Your task to perform on an android device: check out phone information Image 0: 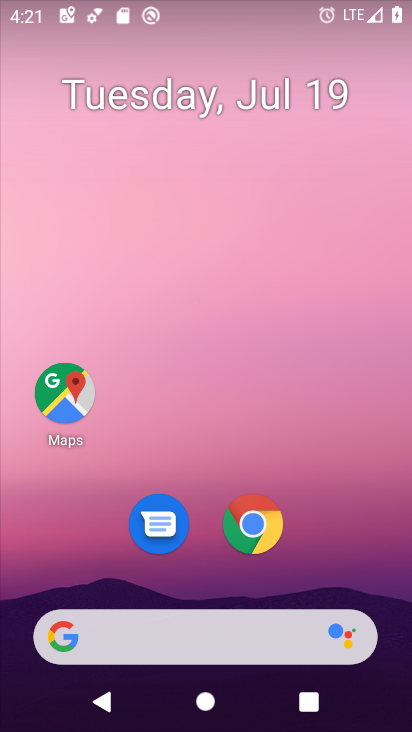
Step 0: drag from (320, 558) to (294, 38)
Your task to perform on an android device: check out phone information Image 1: 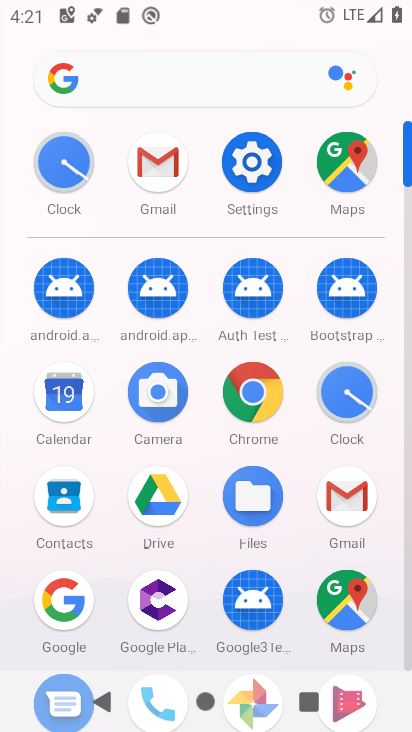
Step 1: drag from (199, 532) to (209, 141)
Your task to perform on an android device: check out phone information Image 2: 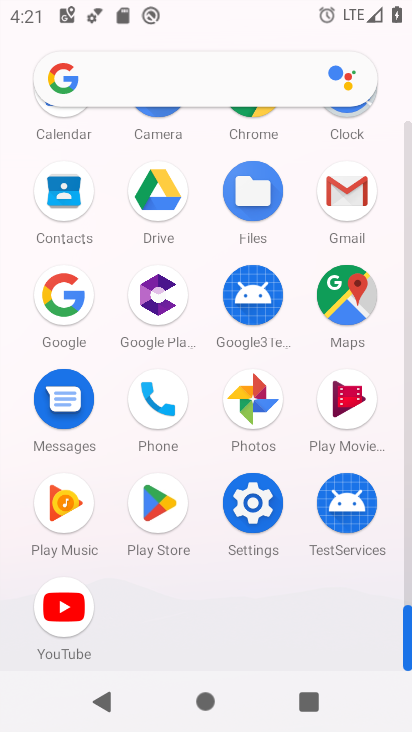
Step 2: click (166, 377)
Your task to perform on an android device: check out phone information Image 3: 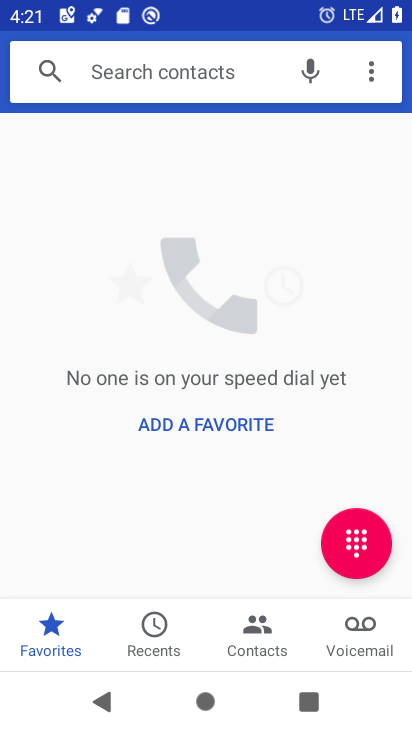
Step 3: click (369, 83)
Your task to perform on an android device: check out phone information Image 4: 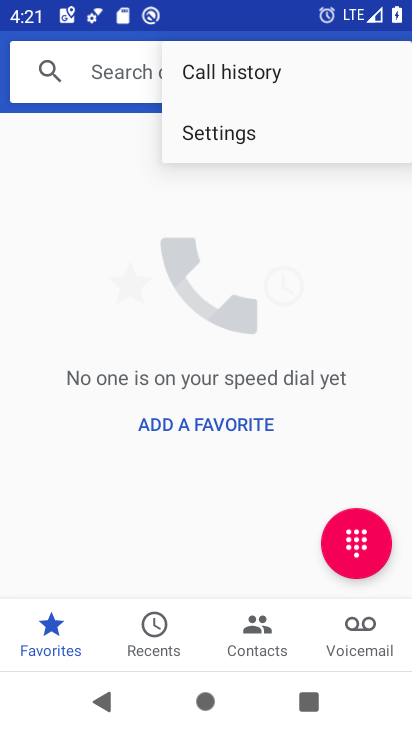
Step 4: click (258, 130)
Your task to perform on an android device: check out phone information Image 5: 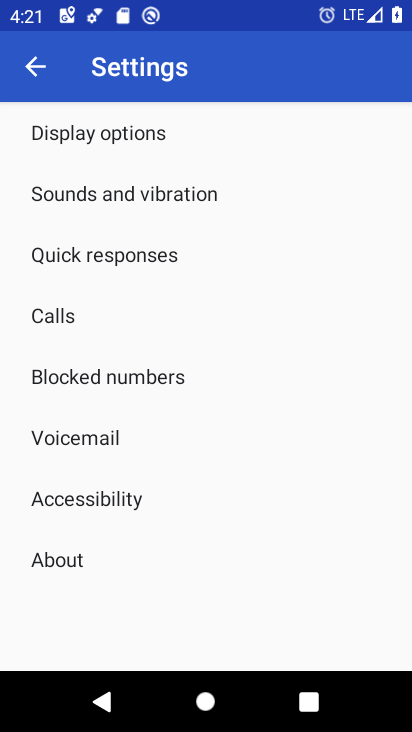
Step 5: click (61, 555)
Your task to perform on an android device: check out phone information Image 6: 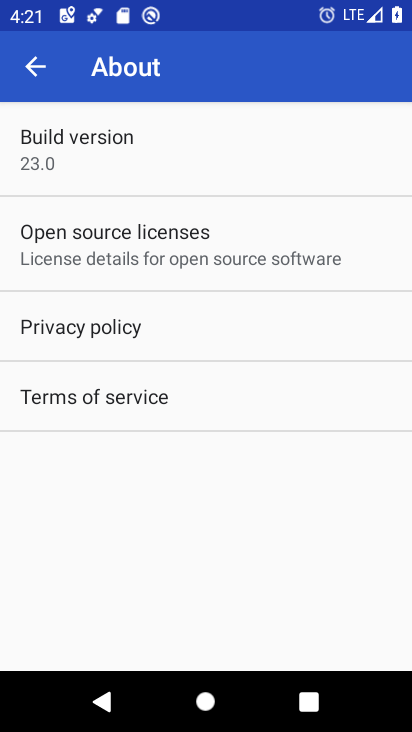
Step 6: task complete